Your task to perform on an android device: toggle notification dots Image 0: 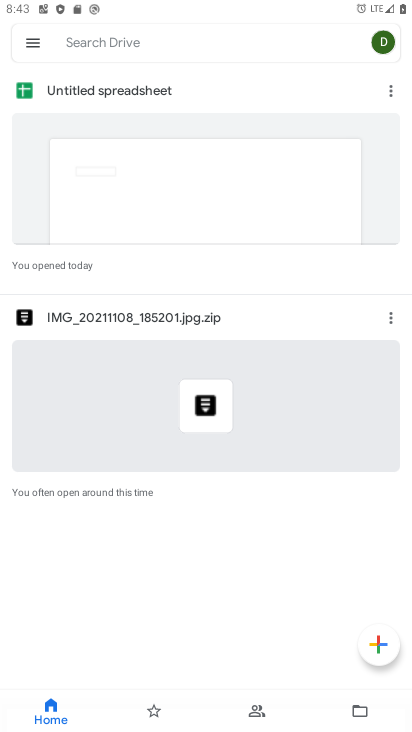
Step 0: press home button
Your task to perform on an android device: toggle notification dots Image 1: 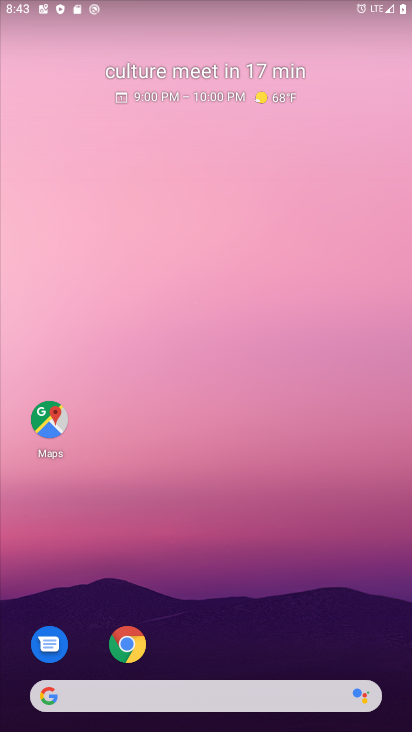
Step 1: drag from (228, 714) to (156, 328)
Your task to perform on an android device: toggle notification dots Image 2: 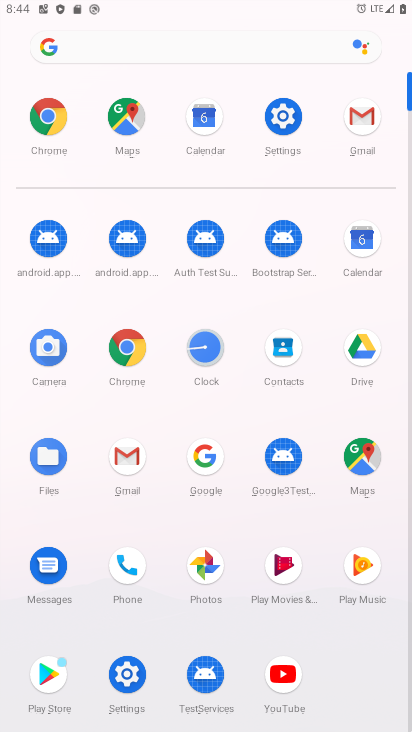
Step 2: click (298, 117)
Your task to perform on an android device: toggle notification dots Image 3: 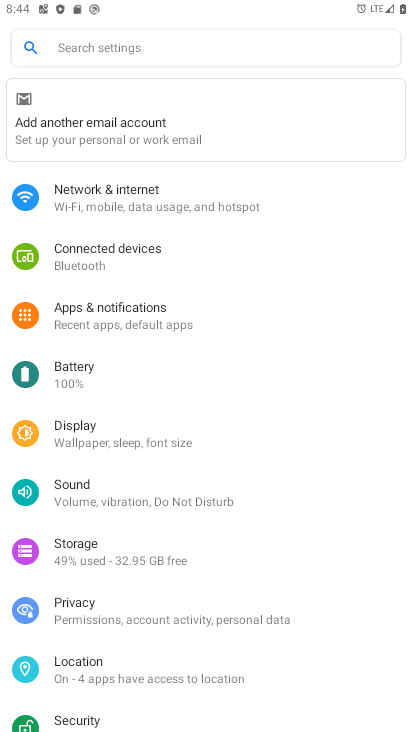
Step 3: click (86, 47)
Your task to perform on an android device: toggle notification dots Image 4: 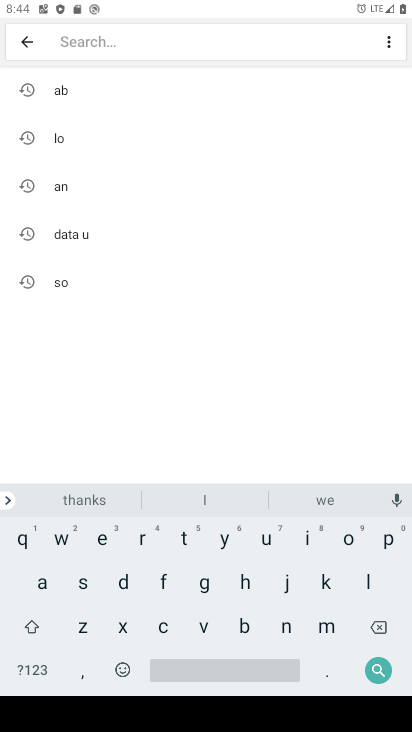
Step 4: click (124, 570)
Your task to perform on an android device: toggle notification dots Image 5: 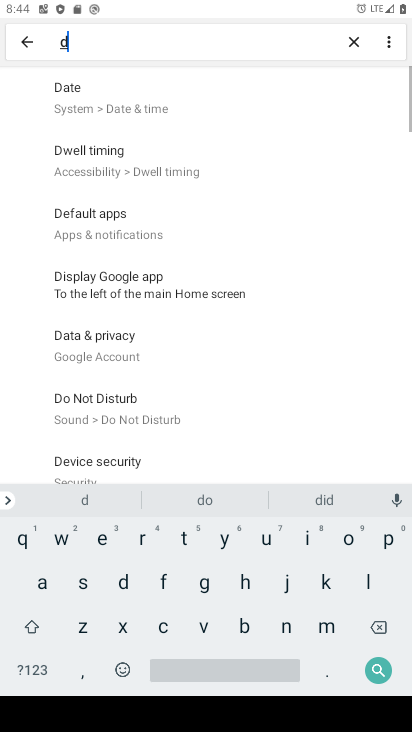
Step 5: click (342, 539)
Your task to perform on an android device: toggle notification dots Image 6: 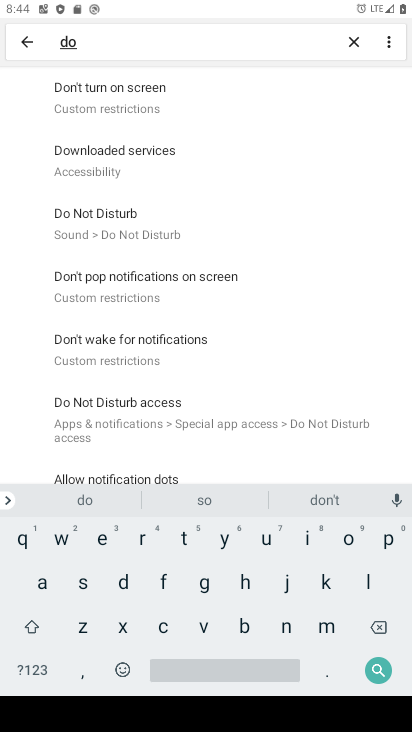
Step 6: click (182, 536)
Your task to perform on an android device: toggle notification dots Image 7: 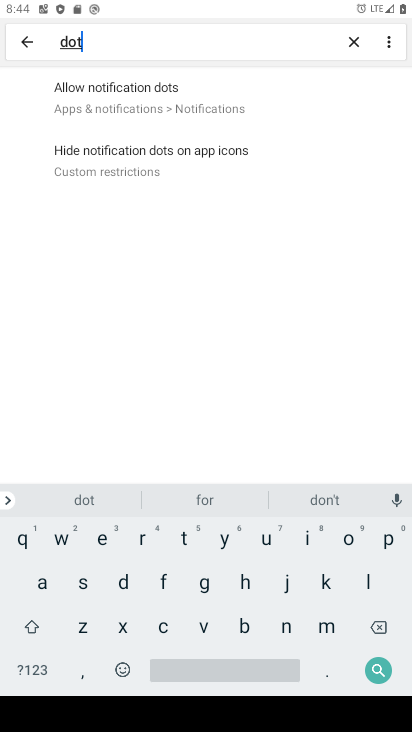
Step 7: click (140, 92)
Your task to perform on an android device: toggle notification dots Image 8: 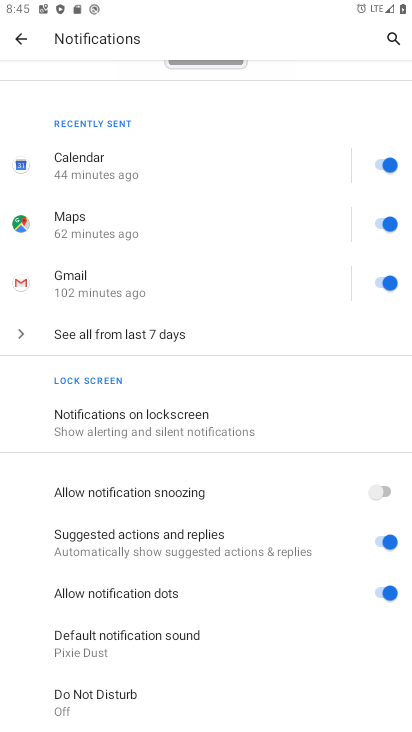
Step 8: task complete